Your task to perform on an android device: Open sound settings Image 0: 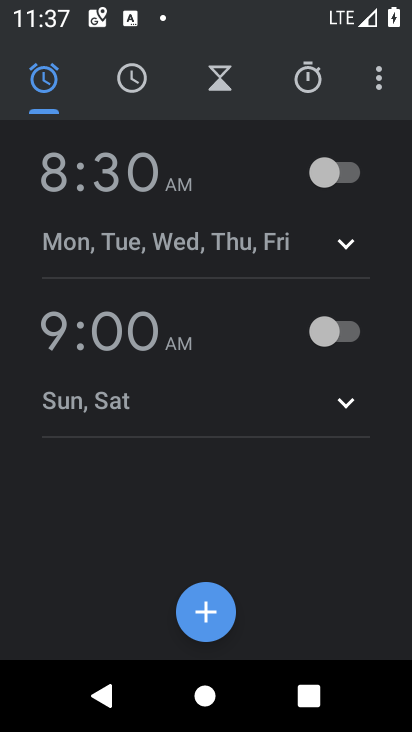
Step 0: press home button
Your task to perform on an android device: Open sound settings Image 1: 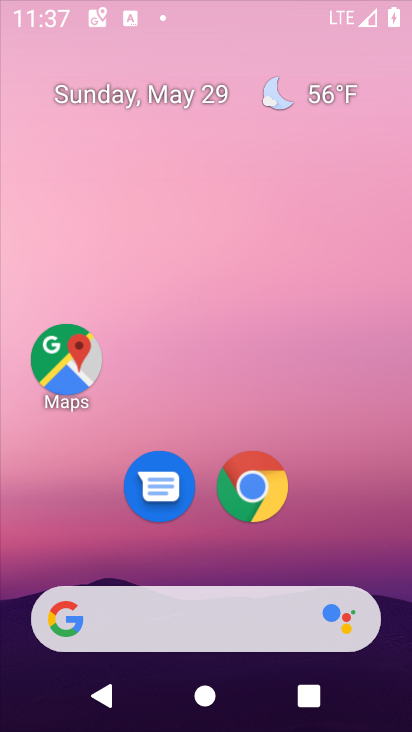
Step 1: drag from (90, 645) to (175, 110)
Your task to perform on an android device: Open sound settings Image 2: 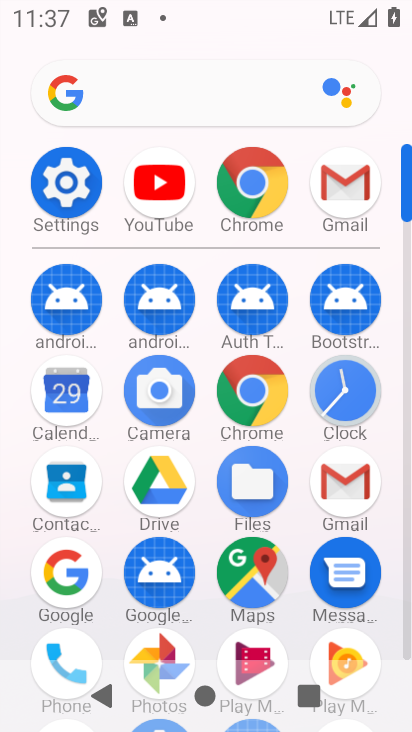
Step 2: drag from (193, 479) to (199, 171)
Your task to perform on an android device: Open sound settings Image 3: 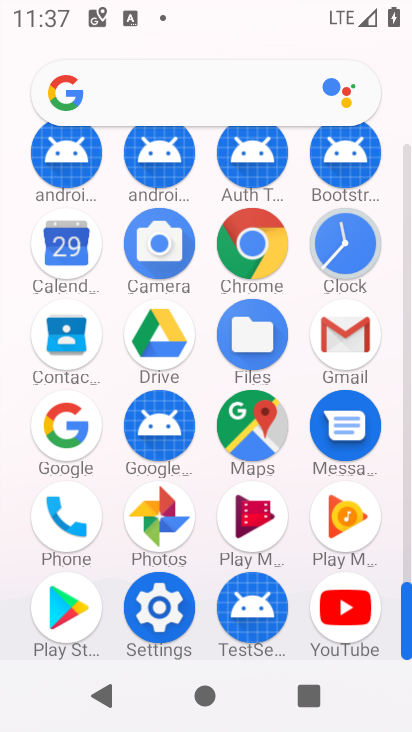
Step 3: click (169, 605)
Your task to perform on an android device: Open sound settings Image 4: 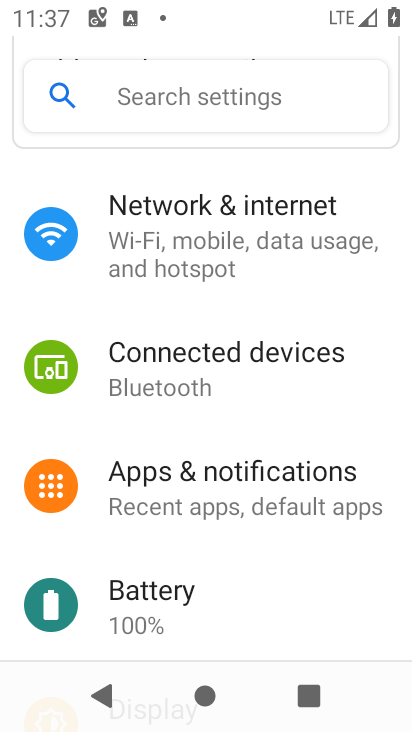
Step 4: drag from (205, 469) to (218, 135)
Your task to perform on an android device: Open sound settings Image 5: 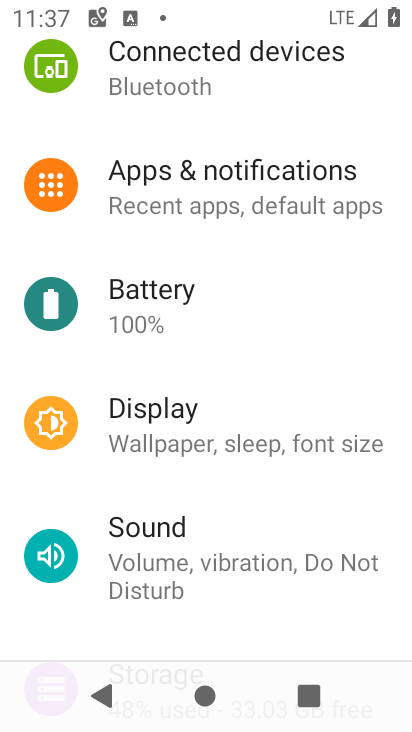
Step 5: click (237, 568)
Your task to perform on an android device: Open sound settings Image 6: 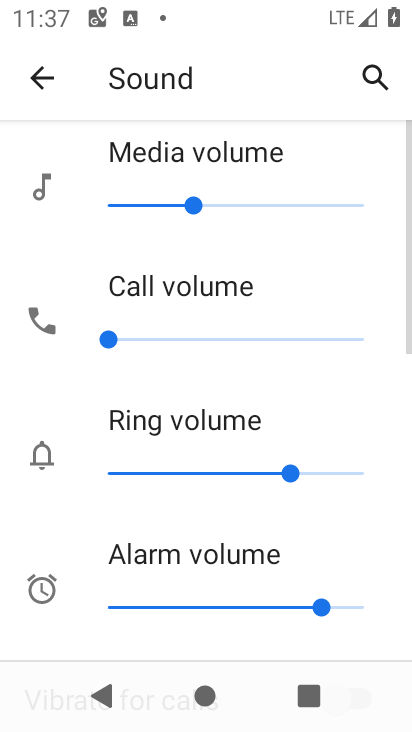
Step 6: task complete